Your task to perform on an android device: turn on wifi Image 0: 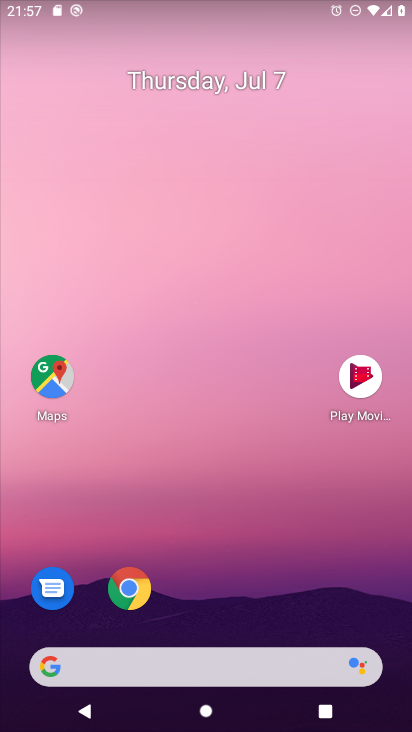
Step 0: drag from (178, 614) to (199, 302)
Your task to perform on an android device: turn on wifi Image 1: 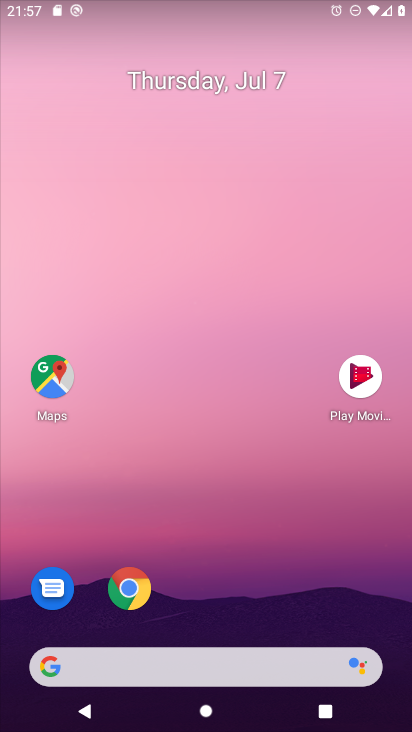
Step 1: drag from (233, 566) to (226, 208)
Your task to perform on an android device: turn on wifi Image 2: 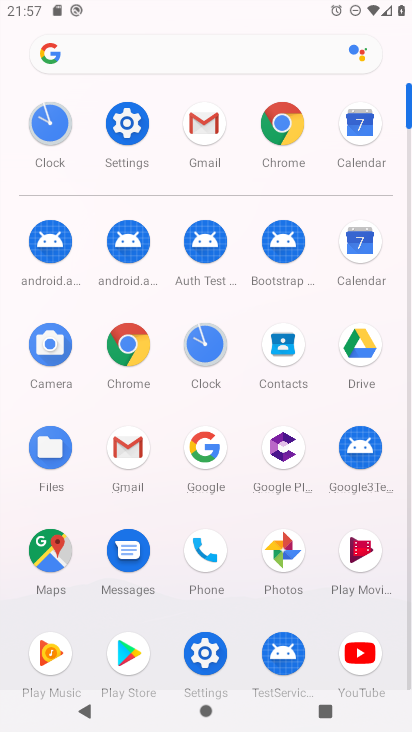
Step 2: click (131, 127)
Your task to perform on an android device: turn on wifi Image 3: 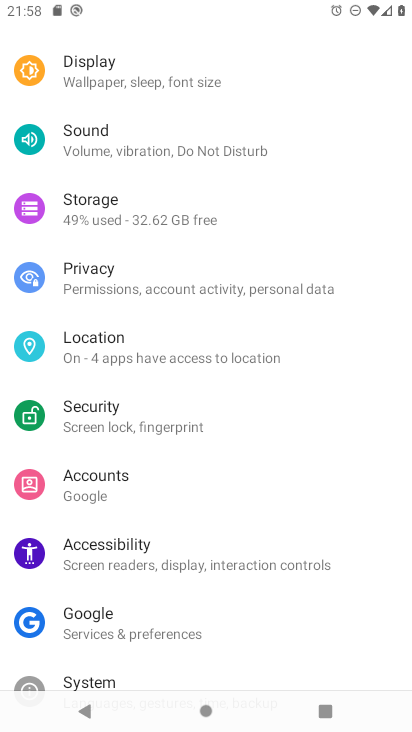
Step 3: drag from (73, 146) to (105, 530)
Your task to perform on an android device: turn on wifi Image 4: 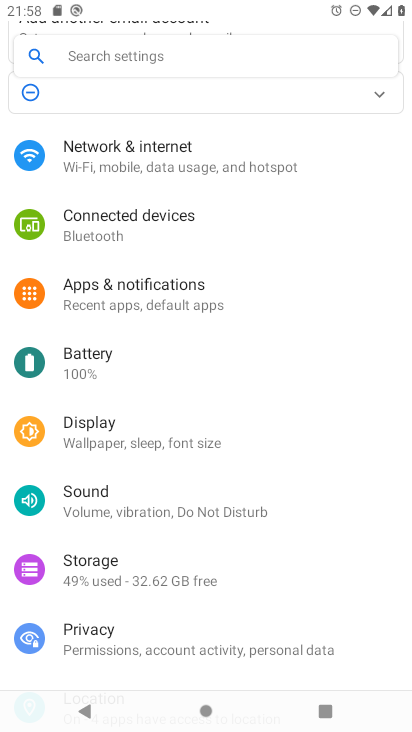
Step 4: click (140, 174)
Your task to perform on an android device: turn on wifi Image 5: 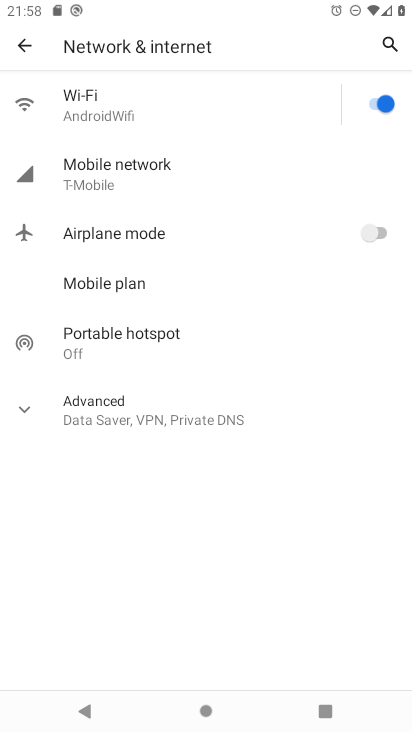
Step 5: task complete